Your task to perform on an android device: Clear the shopping cart on target. Add "alienware aurora" to the cart on target, then select checkout. Image 0: 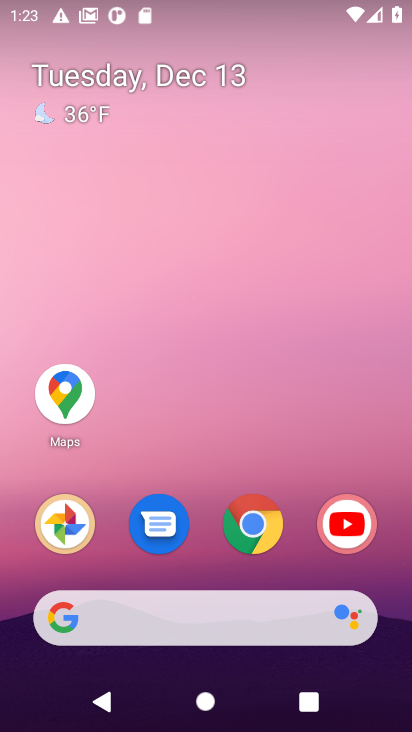
Step 0: click (252, 524)
Your task to perform on an android device: Clear the shopping cart on target. Add "alienware aurora" to the cart on target, then select checkout. Image 1: 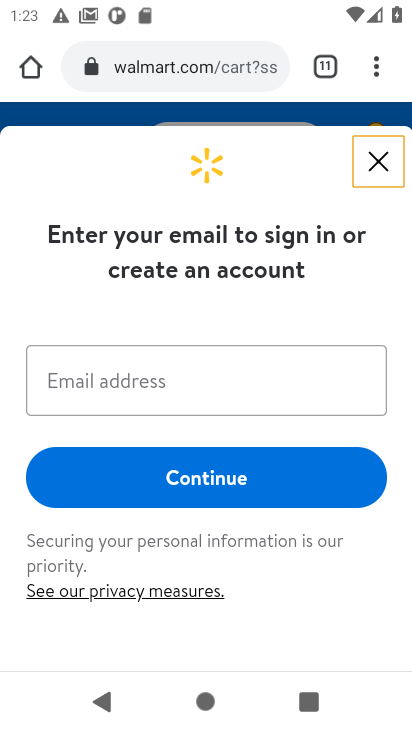
Step 1: click (161, 71)
Your task to perform on an android device: Clear the shopping cart on target. Add "alienware aurora" to the cart on target, then select checkout. Image 2: 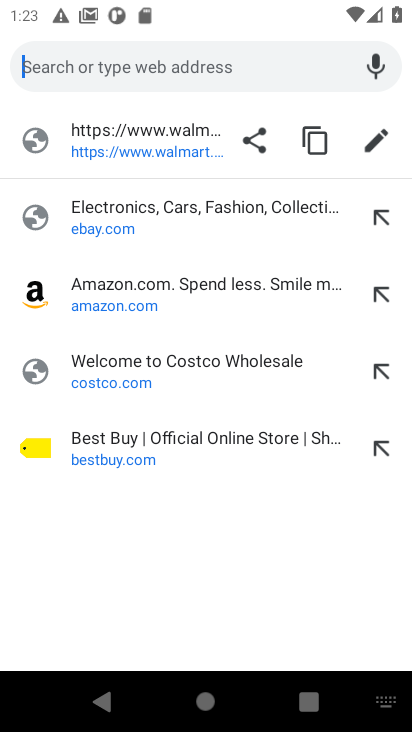
Step 2: type "target.com"
Your task to perform on an android device: Clear the shopping cart on target. Add "alienware aurora" to the cart on target, then select checkout. Image 3: 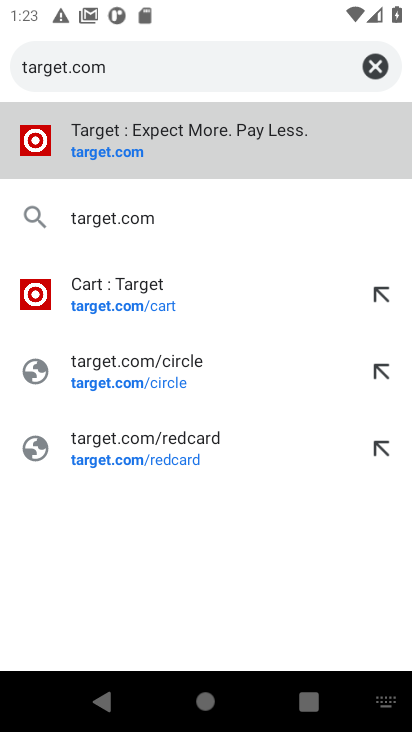
Step 3: click (130, 158)
Your task to perform on an android device: Clear the shopping cart on target. Add "alienware aurora" to the cart on target, then select checkout. Image 4: 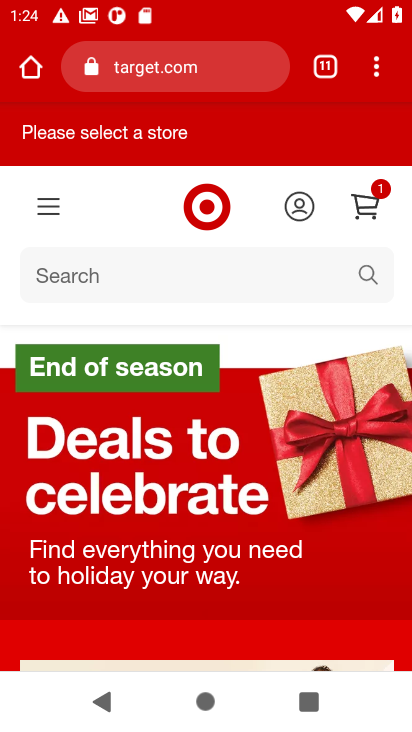
Step 4: click (362, 206)
Your task to perform on an android device: Clear the shopping cart on target. Add "alienware aurora" to the cart on target, then select checkout. Image 5: 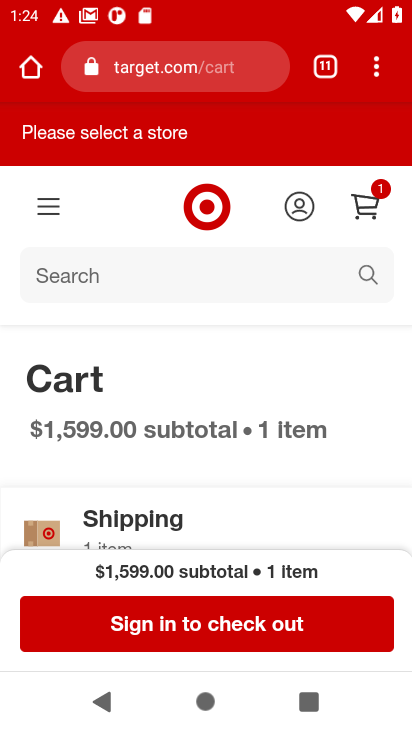
Step 5: drag from (261, 444) to (260, 236)
Your task to perform on an android device: Clear the shopping cart on target. Add "alienware aurora" to the cart on target, then select checkout. Image 6: 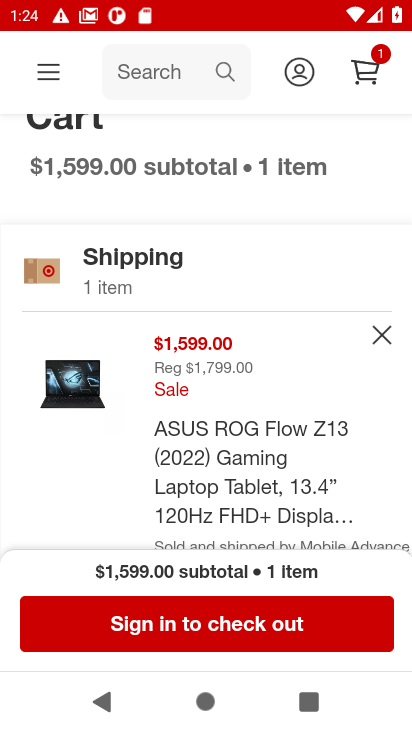
Step 6: click (382, 342)
Your task to perform on an android device: Clear the shopping cart on target. Add "alienware aurora" to the cart on target, then select checkout. Image 7: 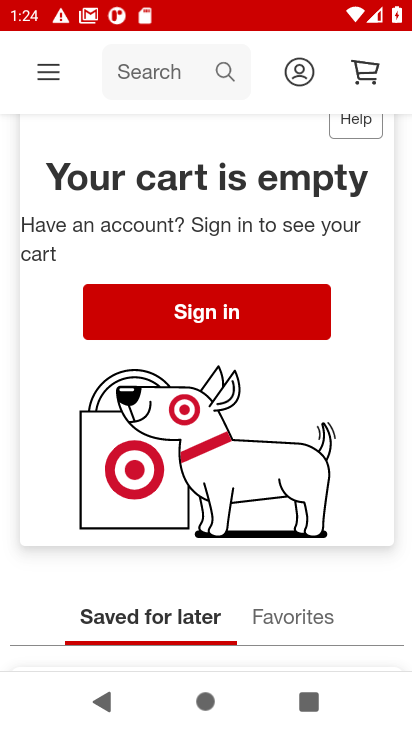
Step 7: drag from (281, 247) to (289, 466)
Your task to perform on an android device: Clear the shopping cart on target. Add "alienware aurora" to the cart on target, then select checkout. Image 8: 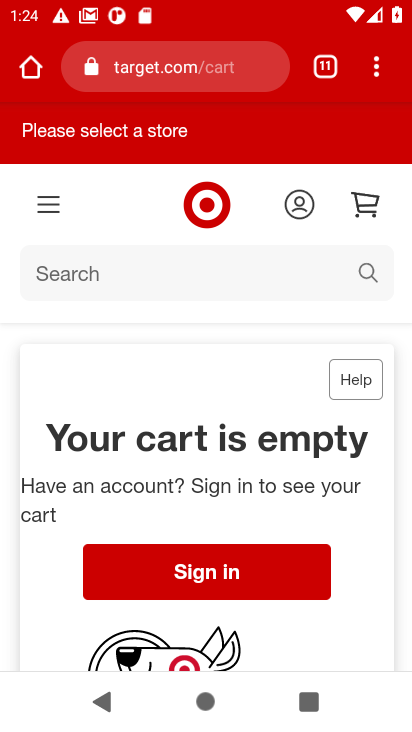
Step 8: click (76, 275)
Your task to perform on an android device: Clear the shopping cart on target. Add "alienware aurora" to the cart on target, then select checkout. Image 9: 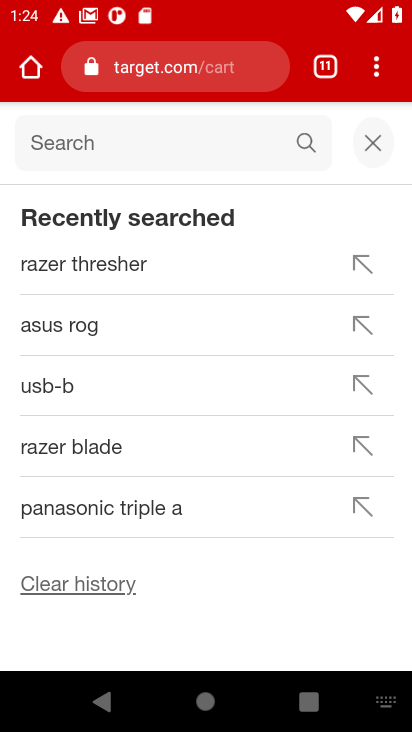
Step 9: type "alienware aurora"
Your task to perform on an android device: Clear the shopping cart on target. Add "alienware aurora" to the cart on target, then select checkout. Image 10: 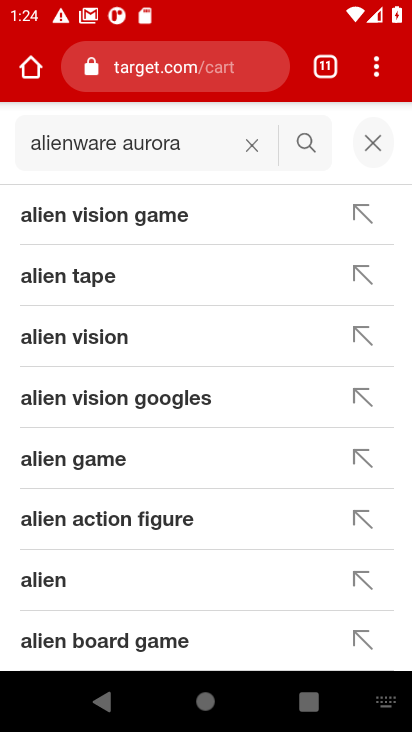
Step 10: click (306, 141)
Your task to perform on an android device: Clear the shopping cart on target. Add "alienware aurora" to the cart on target, then select checkout. Image 11: 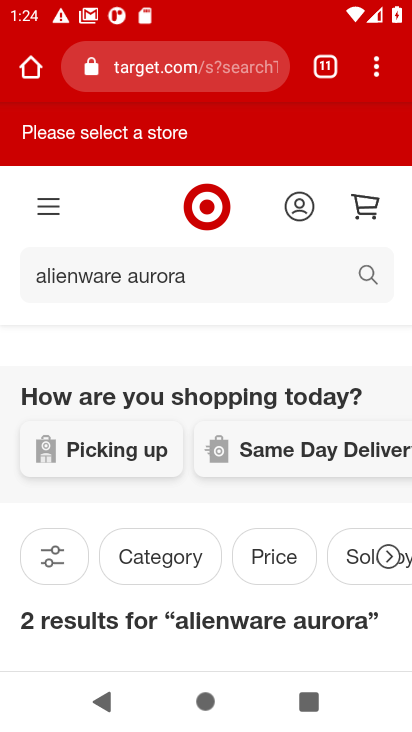
Step 11: click (190, 201)
Your task to perform on an android device: Clear the shopping cart on target. Add "alienware aurora" to the cart on target, then select checkout. Image 12: 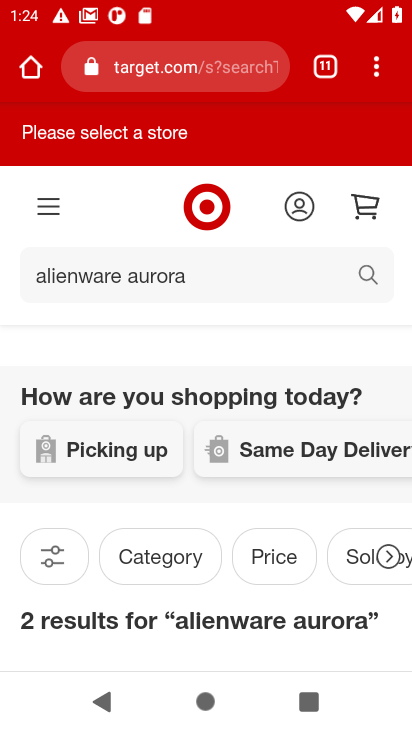
Step 12: task complete